Your task to perform on an android device: Turn on the flashlight Image 0: 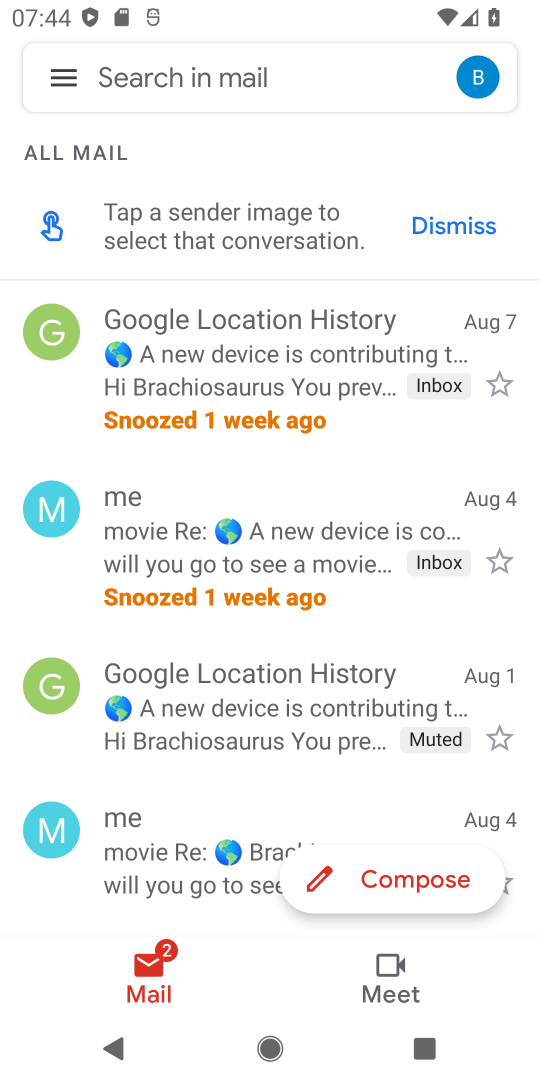
Step 0: press home button
Your task to perform on an android device: Turn on the flashlight Image 1: 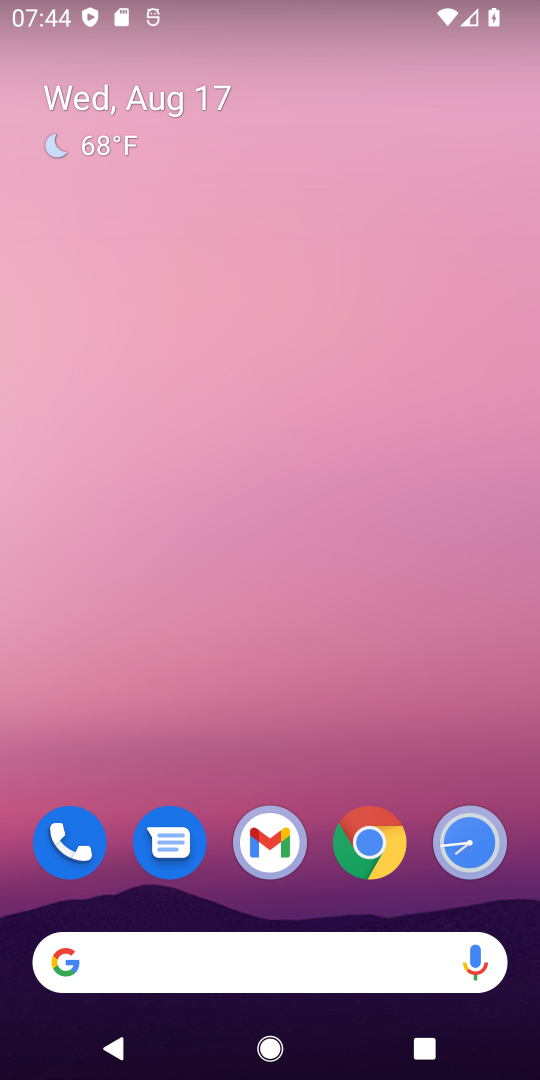
Step 1: drag from (306, 746) to (285, 0)
Your task to perform on an android device: Turn on the flashlight Image 2: 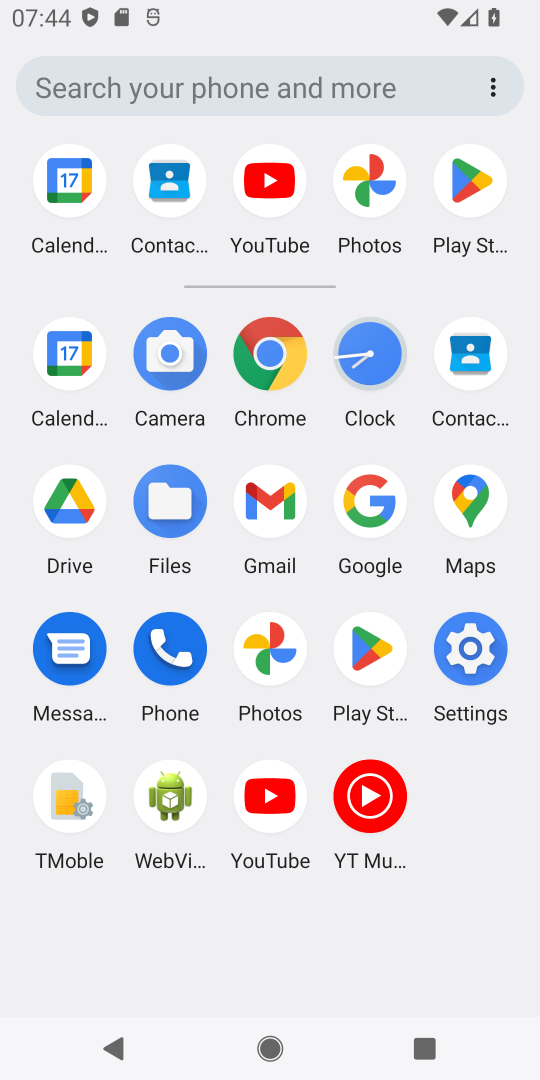
Step 2: click (479, 646)
Your task to perform on an android device: Turn on the flashlight Image 3: 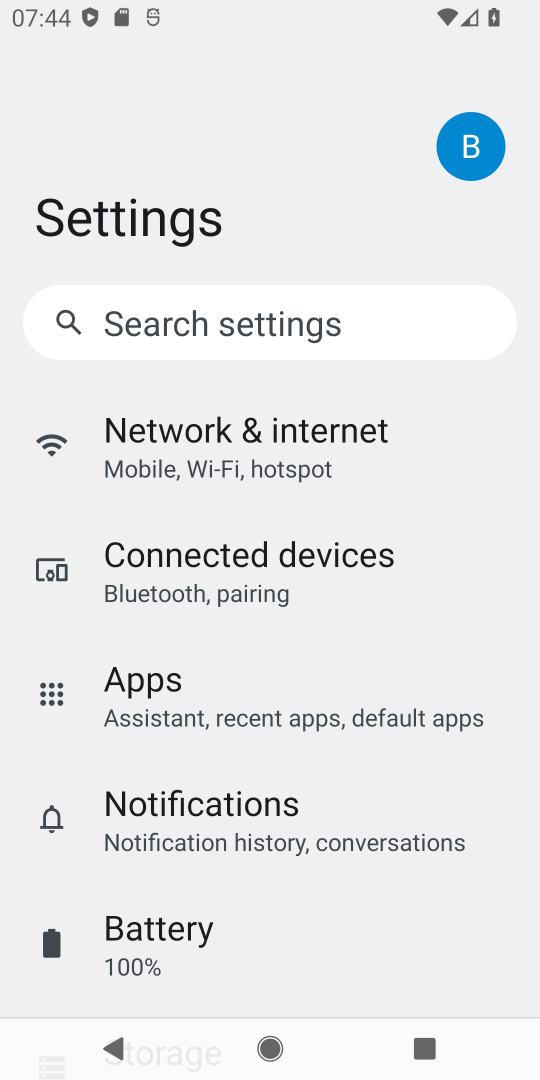
Step 3: click (339, 331)
Your task to perform on an android device: Turn on the flashlight Image 4: 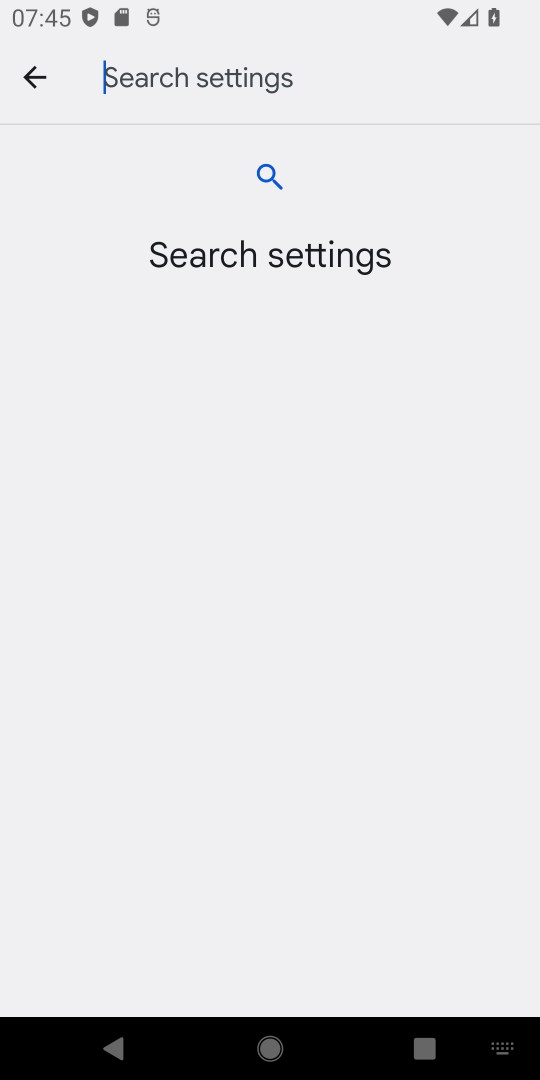
Step 4: type "Flashlight"
Your task to perform on an android device: Turn on the flashlight Image 5: 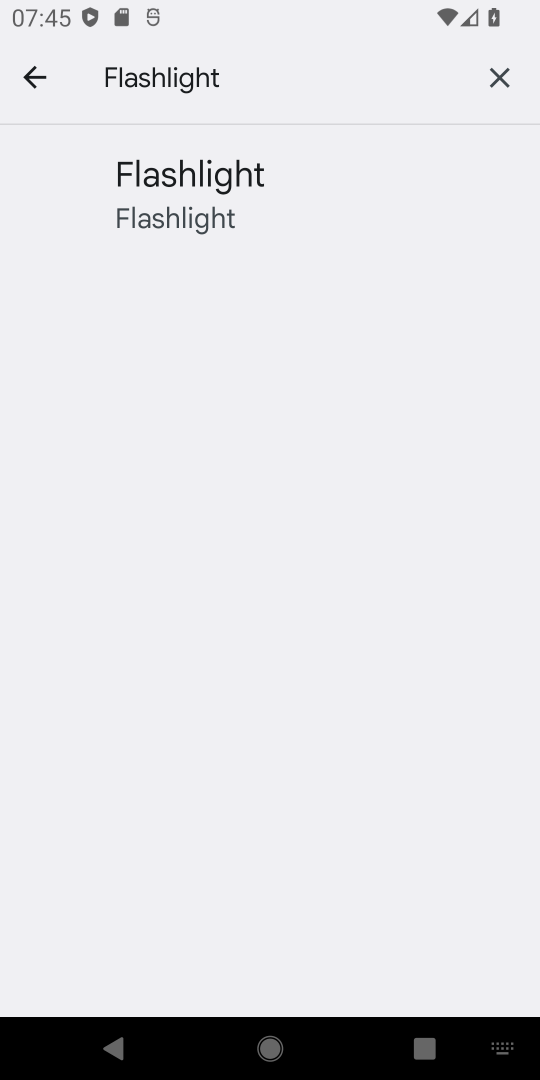
Step 5: click (221, 184)
Your task to perform on an android device: Turn on the flashlight Image 6: 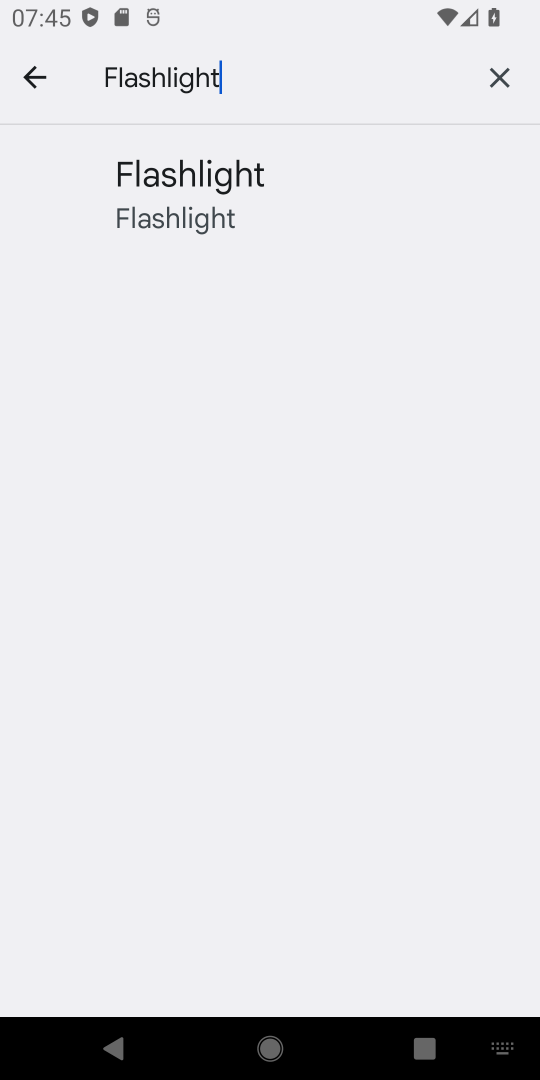
Step 6: click (239, 190)
Your task to perform on an android device: Turn on the flashlight Image 7: 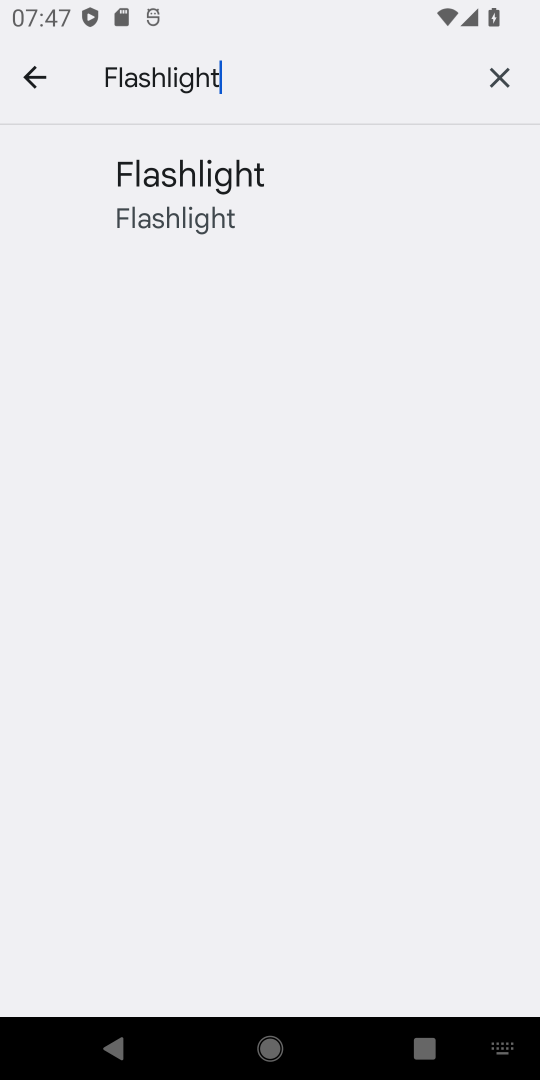
Step 7: task complete